Your task to perform on an android device: turn on airplane mode Image 0: 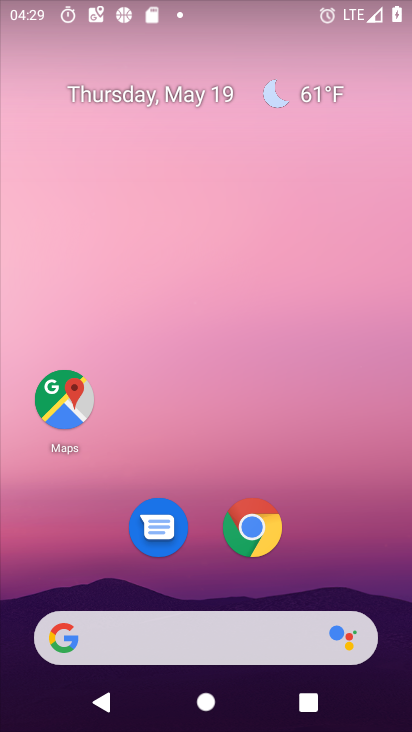
Step 0: drag from (312, 9) to (268, 545)
Your task to perform on an android device: turn on airplane mode Image 1: 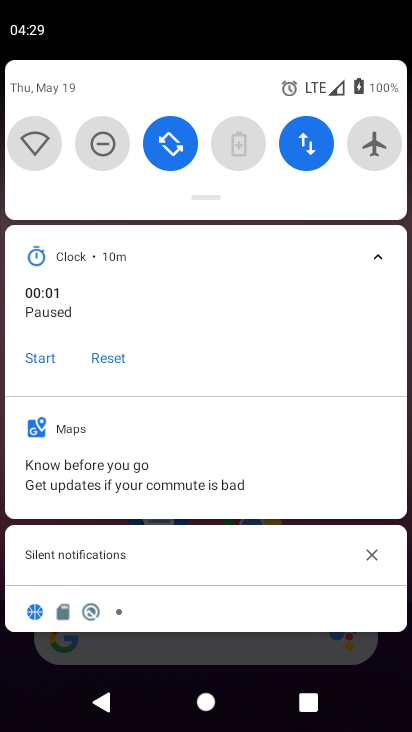
Step 1: click (371, 138)
Your task to perform on an android device: turn on airplane mode Image 2: 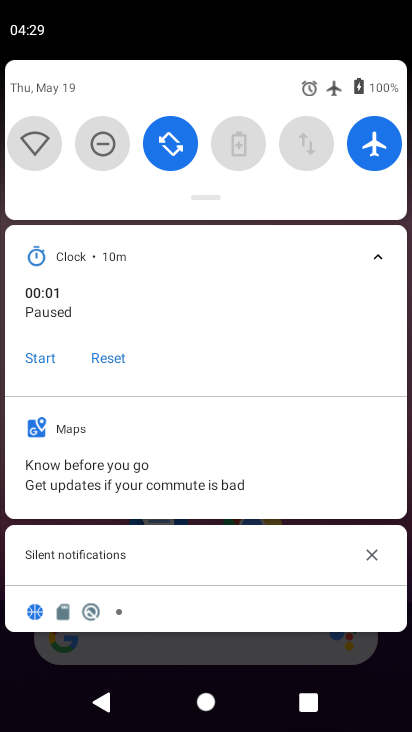
Step 2: task complete